Your task to perform on an android device: Go to Yahoo.com Image 0: 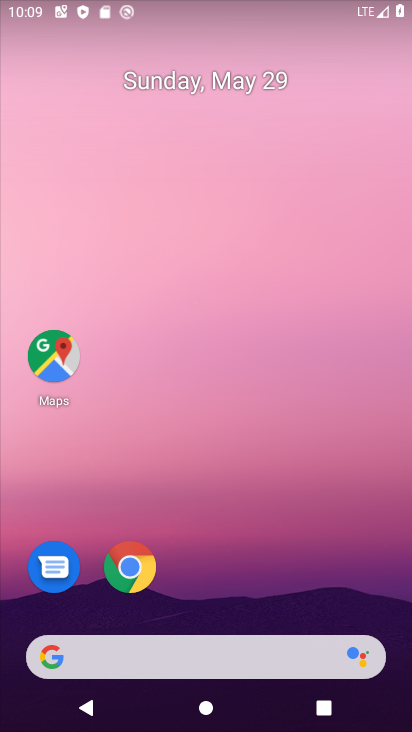
Step 0: click (131, 569)
Your task to perform on an android device: Go to Yahoo.com Image 1: 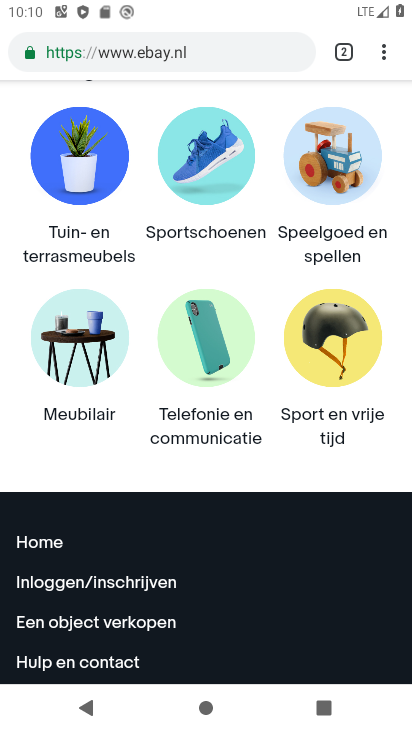
Step 1: click (243, 46)
Your task to perform on an android device: Go to Yahoo.com Image 2: 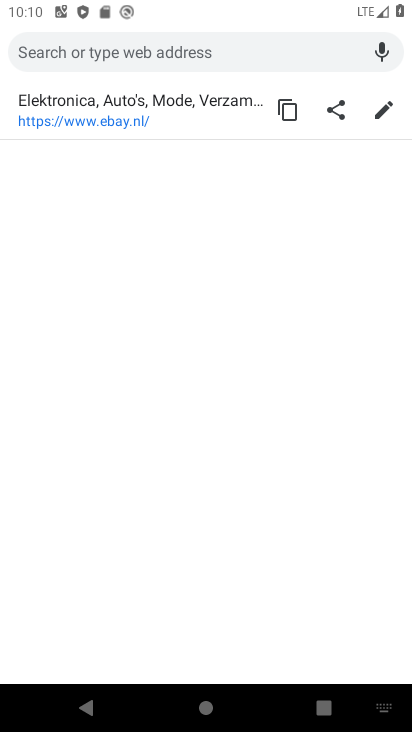
Step 2: type "yahoo.com"
Your task to perform on an android device: Go to Yahoo.com Image 3: 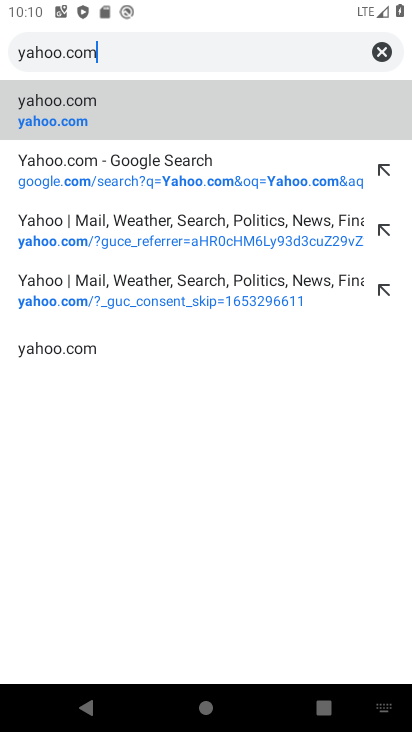
Step 3: click (95, 115)
Your task to perform on an android device: Go to Yahoo.com Image 4: 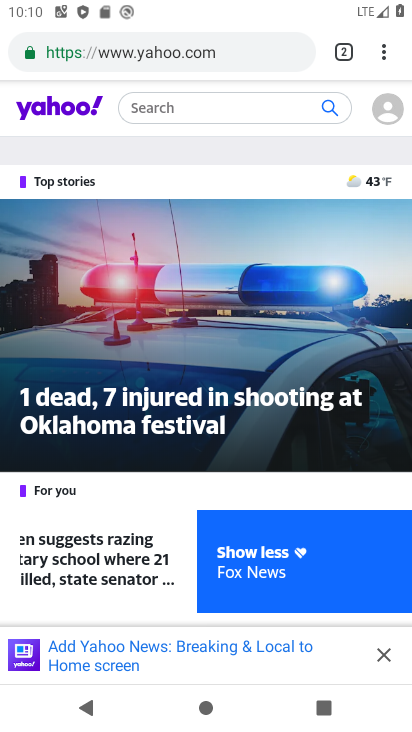
Step 4: task complete